Your task to perform on an android device: allow cookies in the chrome app Image 0: 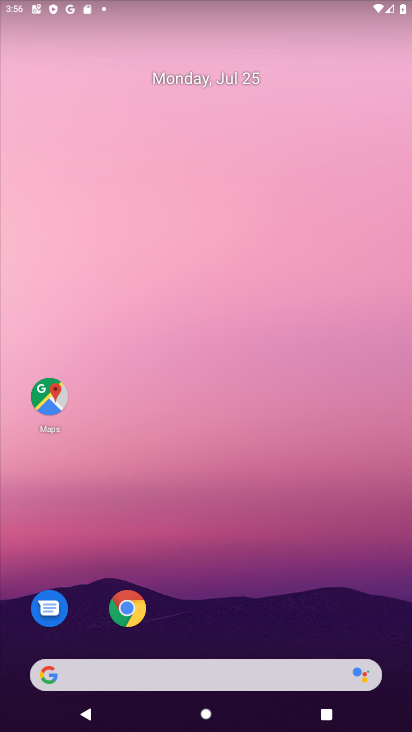
Step 0: press home button
Your task to perform on an android device: allow cookies in the chrome app Image 1: 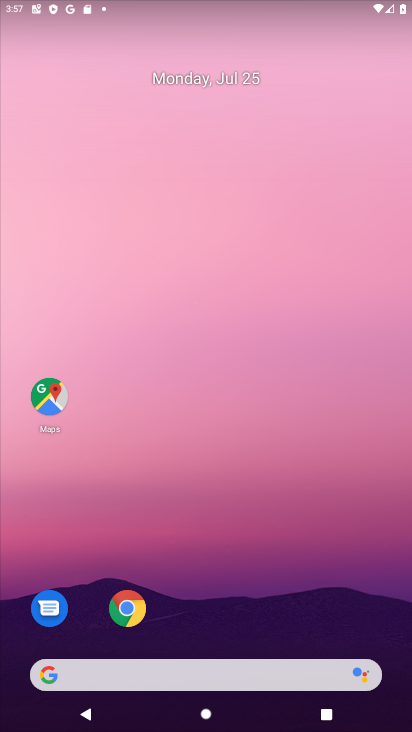
Step 1: click (129, 600)
Your task to perform on an android device: allow cookies in the chrome app Image 2: 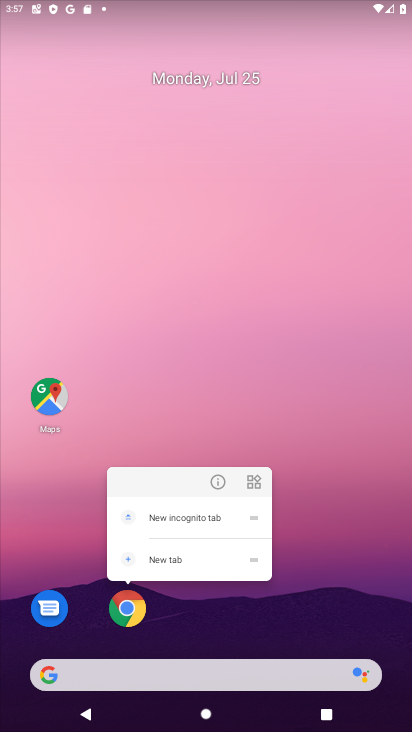
Step 2: click (125, 603)
Your task to perform on an android device: allow cookies in the chrome app Image 3: 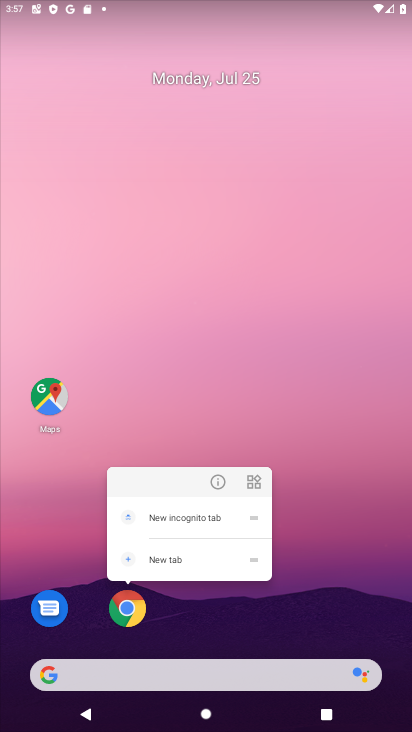
Step 3: click (125, 603)
Your task to perform on an android device: allow cookies in the chrome app Image 4: 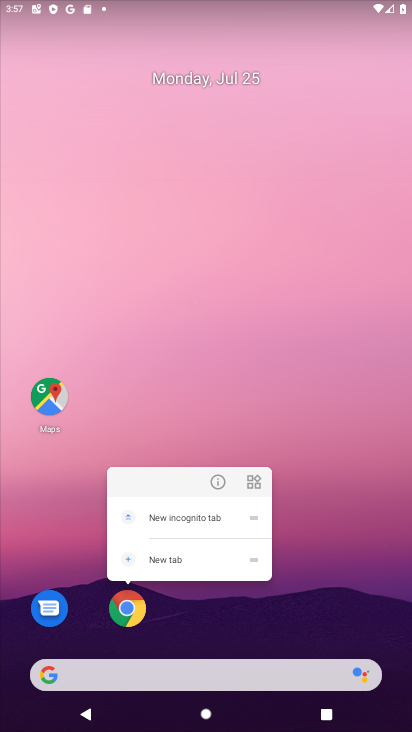
Step 4: click (130, 608)
Your task to perform on an android device: allow cookies in the chrome app Image 5: 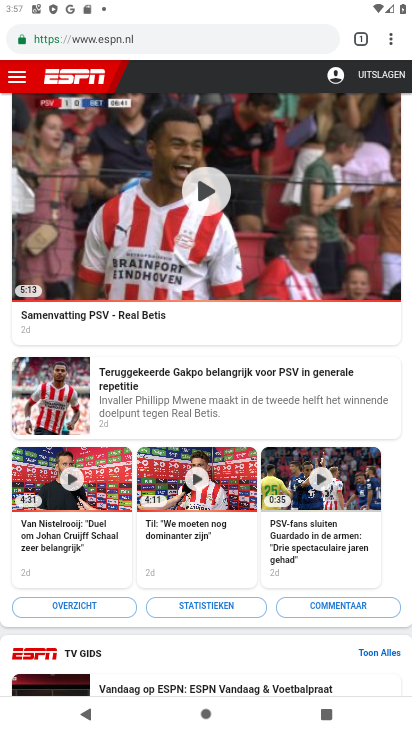
Step 5: click (389, 34)
Your task to perform on an android device: allow cookies in the chrome app Image 6: 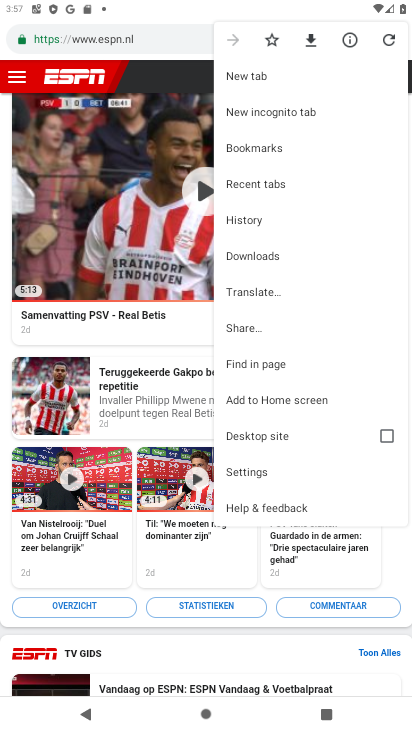
Step 6: click (274, 469)
Your task to perform on an android device: allow cookies in the chrome app Image 7: 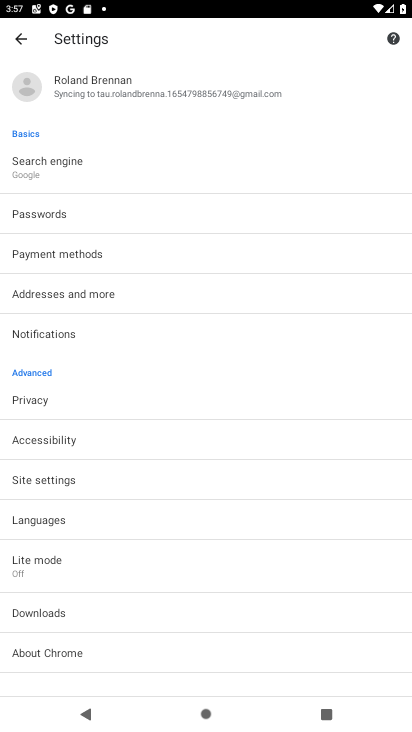
Step 7: click (93, 481)
Your task to perform on an android device: allow cookies in the chrome app Image 8: 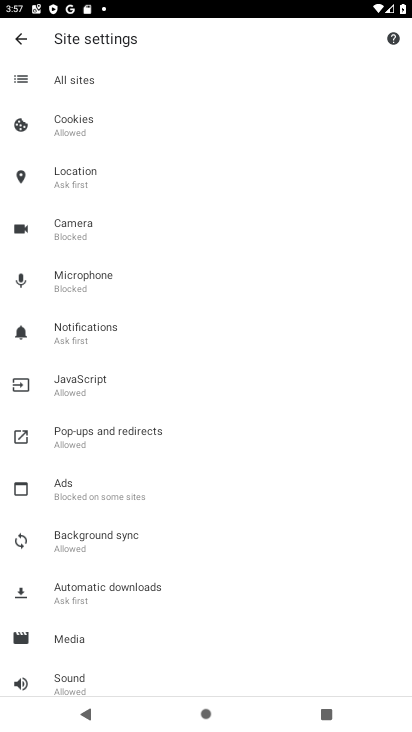
Step 8: click (91, 129)
Your task to perform on an android device: allow cookies in the chrome app Image 9: 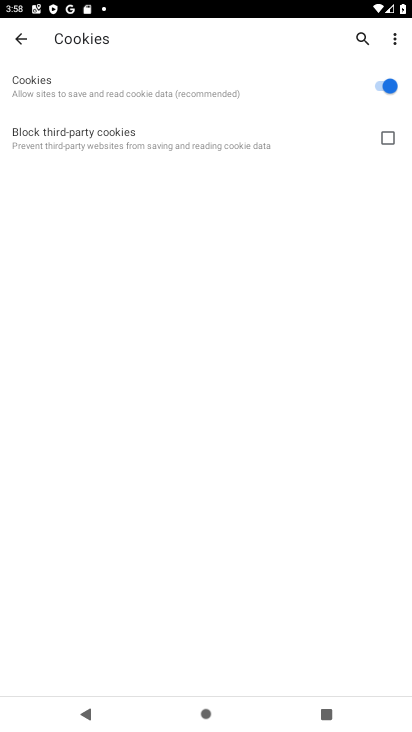
Step 9: task complete